Your task to perform on an android device: empty trash in the gmail app Image 0: 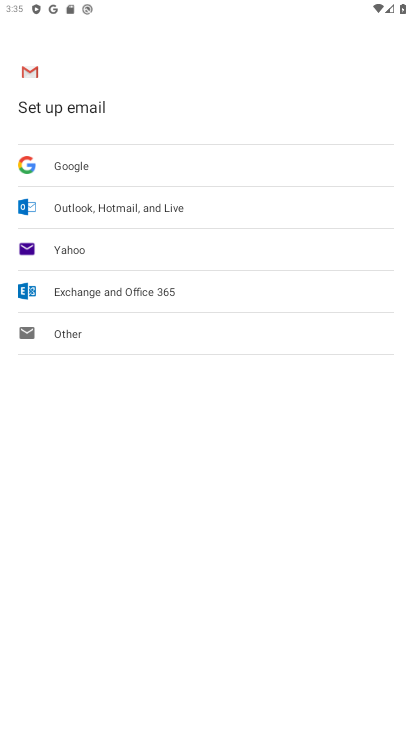
Step 0: press home button
Your task to perform on an android device: empty trash in the gmail app Image 1: 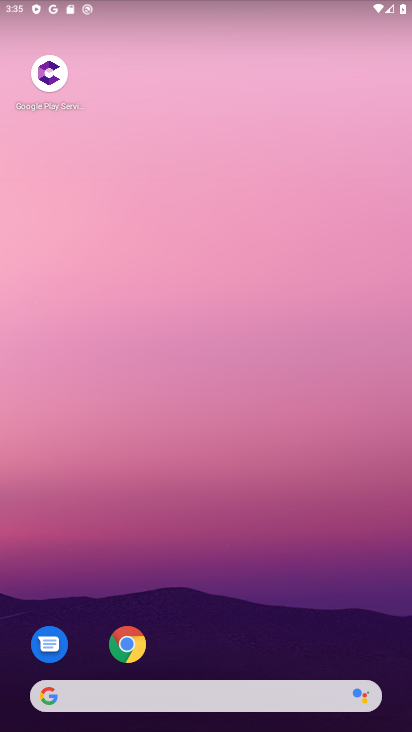
Step 1: drag from (298, 652) to (247, 232)
Your task to perform on an android device: empty trash in the gmail app Image 2: 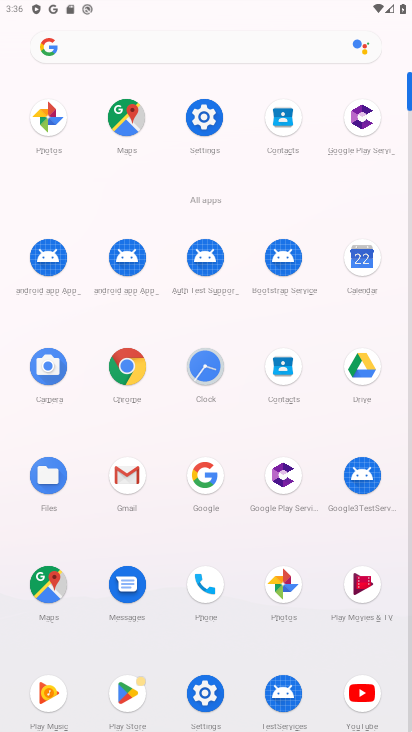
Step 2: click (120, 488)
Your task to perform on an android device: empty trash in the gmail app Image 3: 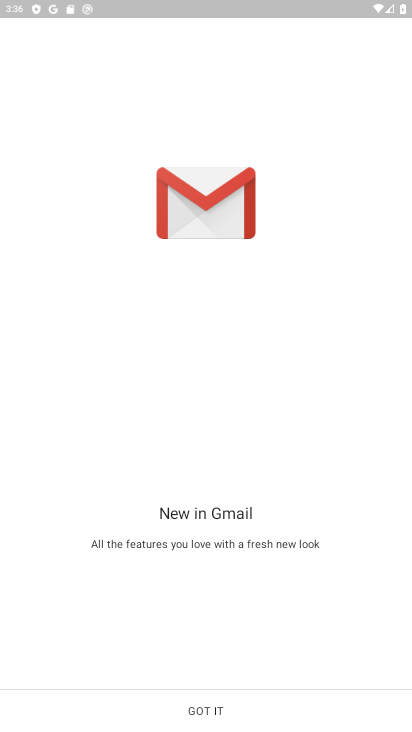
Step 3: click (228, 715)
Your task to perform on an android device: empty trash in the gmail app Image 4: 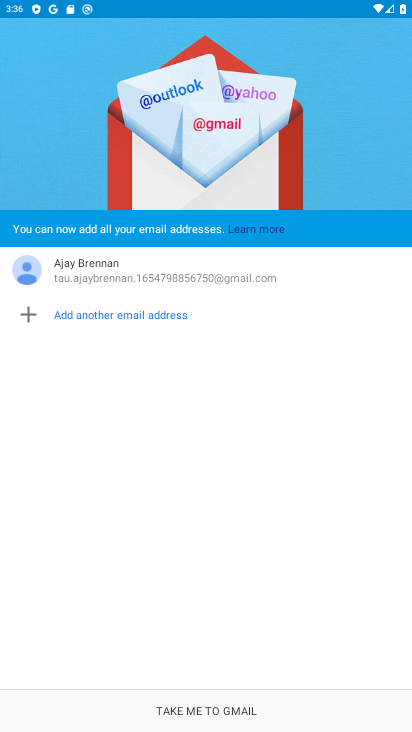
Step 4: click (225, 715)
Your task to perform on an android device: empty trash in the gmail app Image 5: 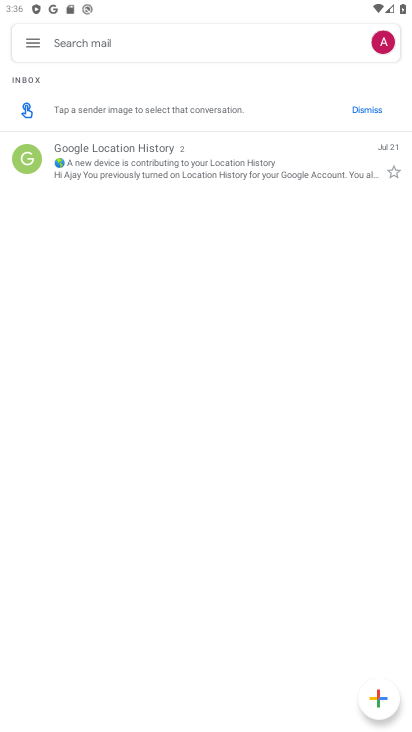
Step 5: click (29, 38)
Your task to perform on an android device: empty trash in the gmail app Image 6: 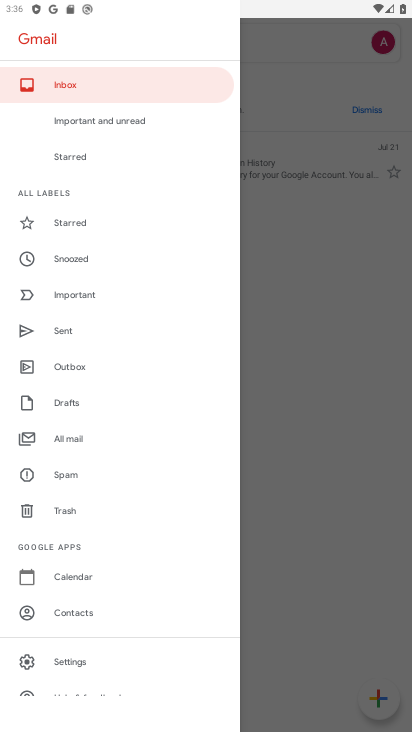
Step 6: click (68, 511)
Your task to perform on an android device: empty trash in the gmail app Image 7: 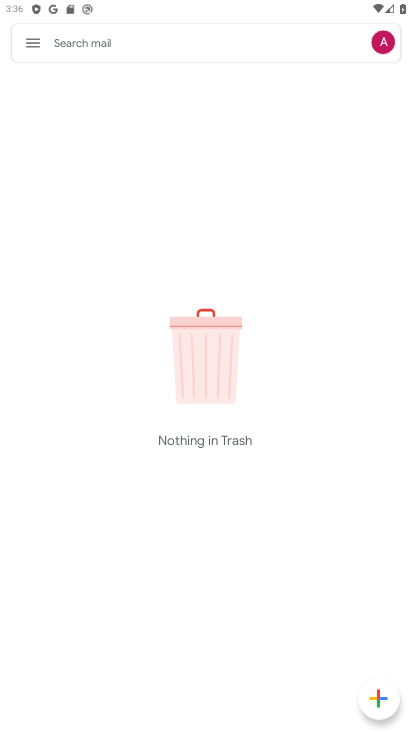
Step 7: task complete